Your task to perform on an android device: Open maps Image 0: 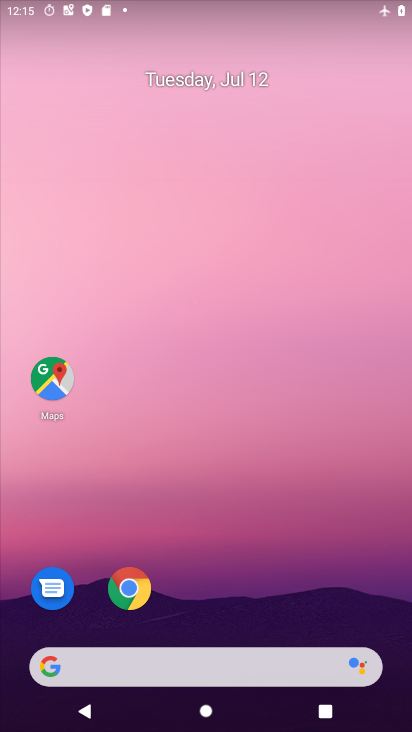
Step 0: click (52, 382)
Your task to perform on an android device: Open maps Image 1: 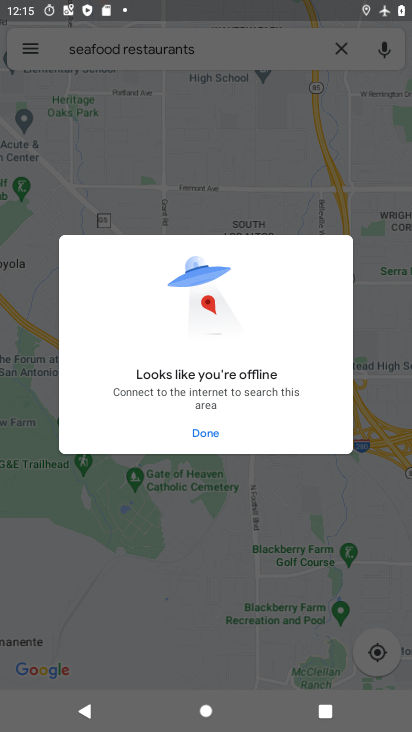
Step 1: click (213, 435)
Your task to perform on an android device: Open maps Image 2: 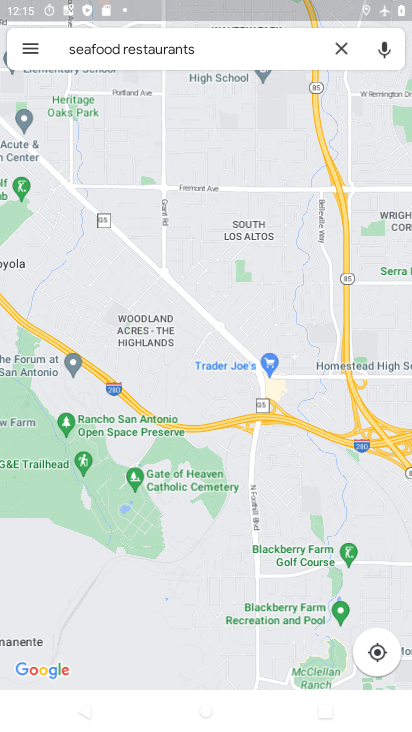
Step 2: task complete